Your task to perform on an android device: Do I have any events this weekend? Image 0: 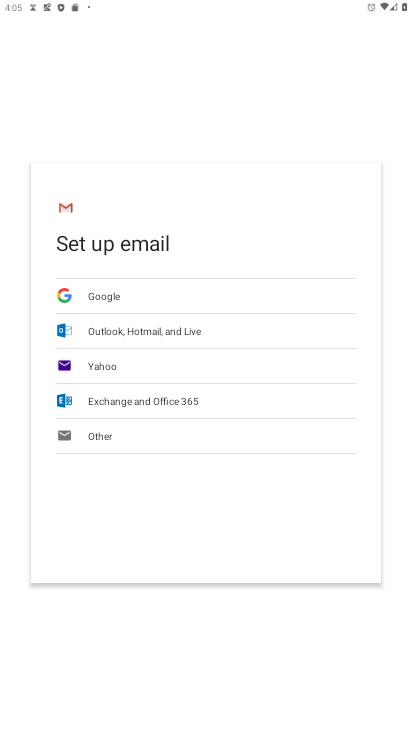
Step 0: press home button
Your task to perform on an android device: Do I have any events this weekend? Image 1: 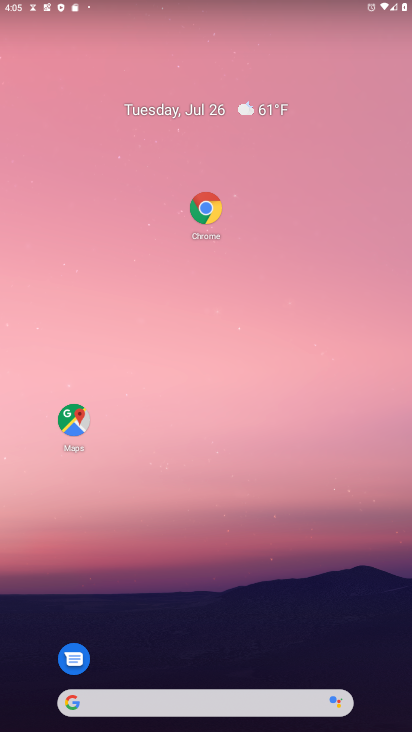
Step 1: drag from (168, 571) to (165, 48)
Your task to perform on an android device: Do I have any events this weekend? Image 2: 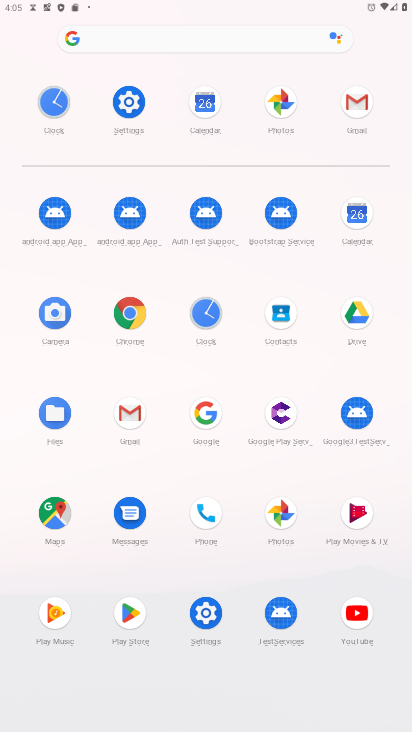
Step 2: click (360, 233)
Your task to perform on an android device: Do I have any events this weekend? Image 3: 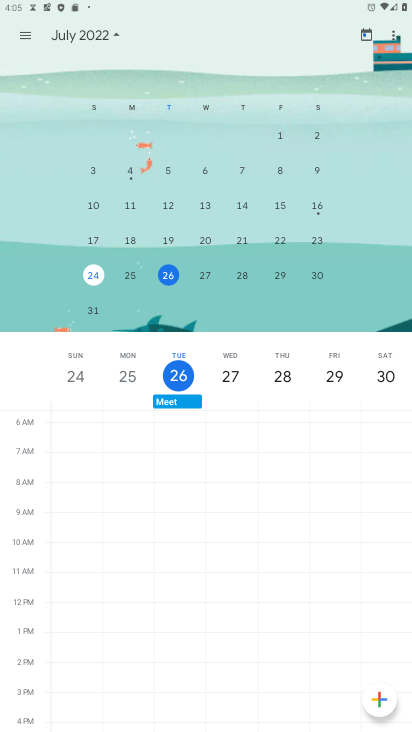
Step 3: task complete